Your task to perform on an android device: Show the shopping cart on newegg.com. Search for "panasonic triple a" on newegg.com, select the first entry, add it to the cart, then select checkout. Image 0: 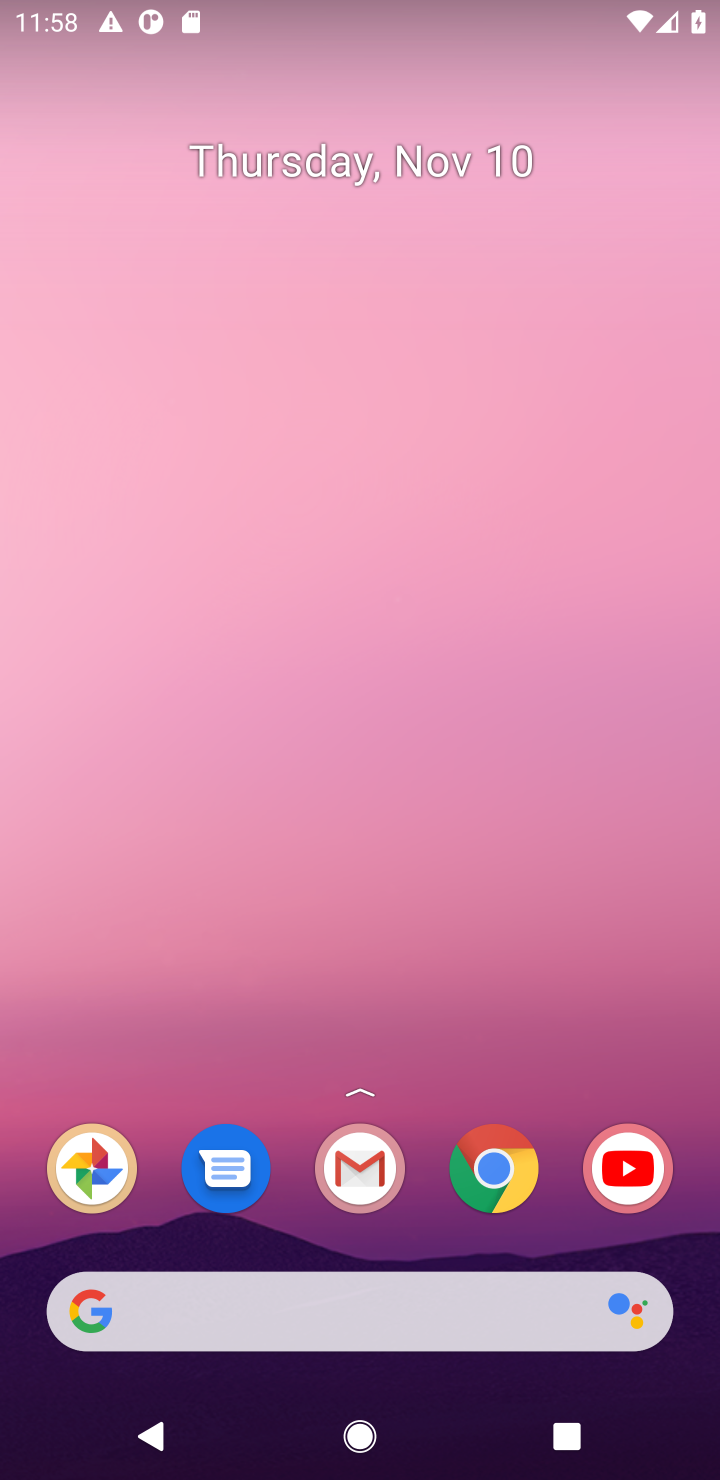
Step 0: click (498, 1170)
Your task to perform on an android device: Show the shopping cart on newegg.com. Search for "panasonic triple a" on newegg.com, select the first entry, add it to the cart, then select checkout. Image 1: 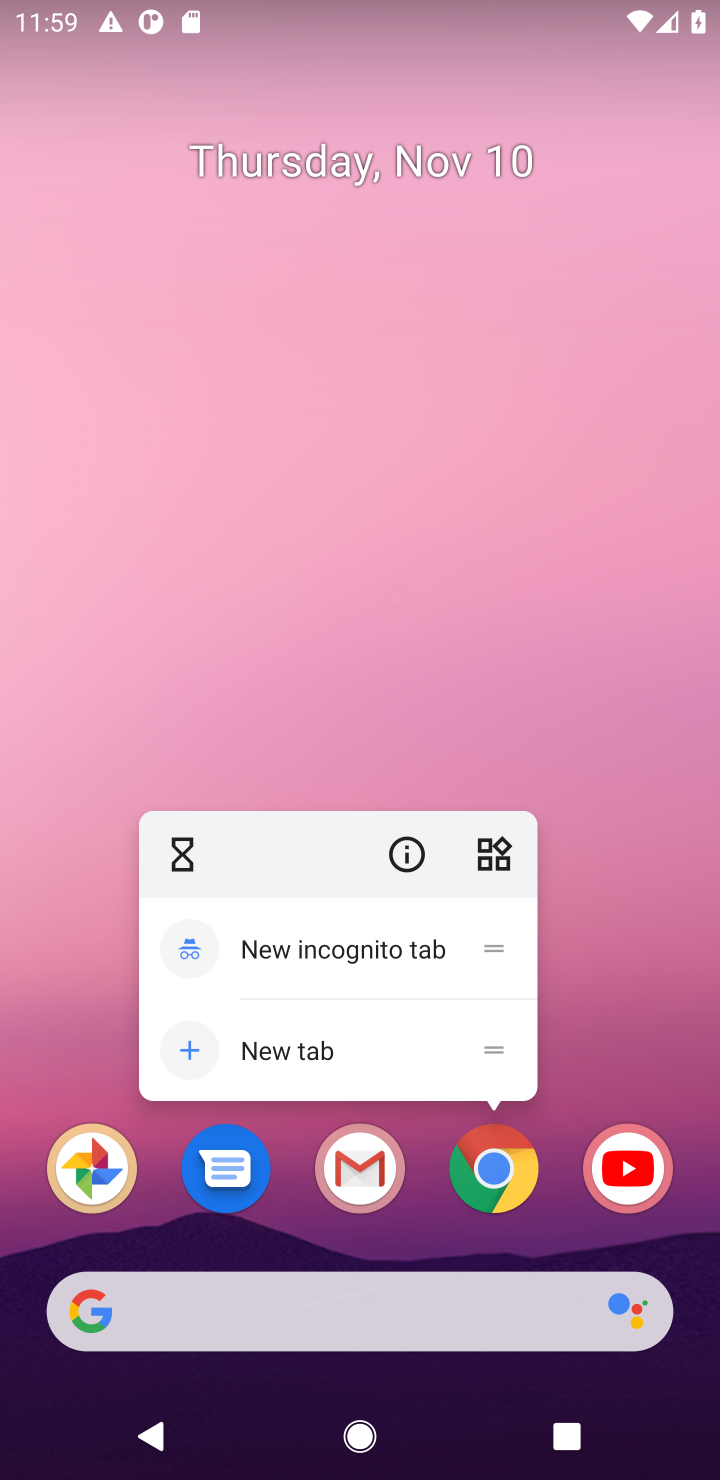
Step 1: click (498, 1170)
Your task to perform on an android device: Show the shopping cart on newegg.com. Search for "panasonic triple a" on newegg.com, select the first entry, add it to the cart, then select checkout. Image 2: 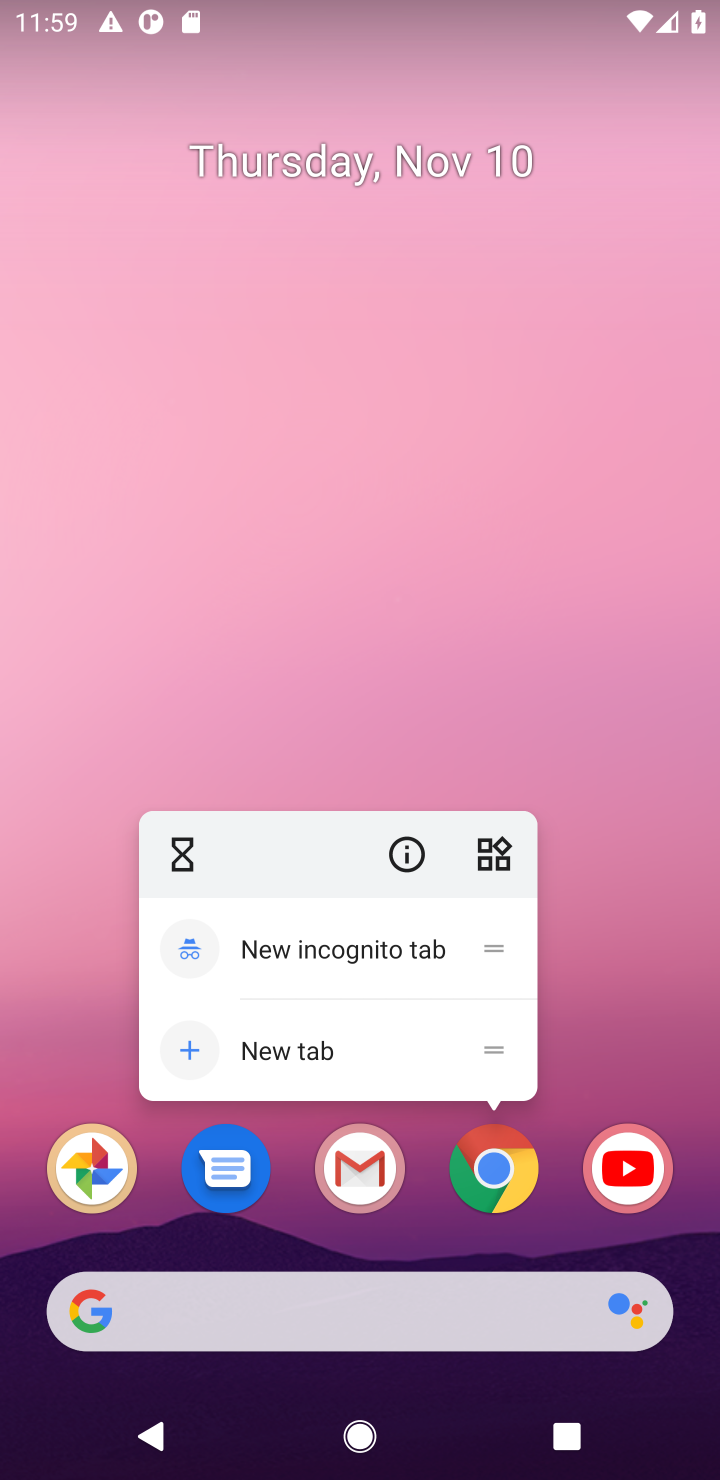
Step 2: click (498, 1171)
Your task to perform on an android device: Show the shopping cart on newegg.com. Search for "panasonic triple a" on newegg.com, select the first entry, add it to the cart, then select checkout. Image 3: 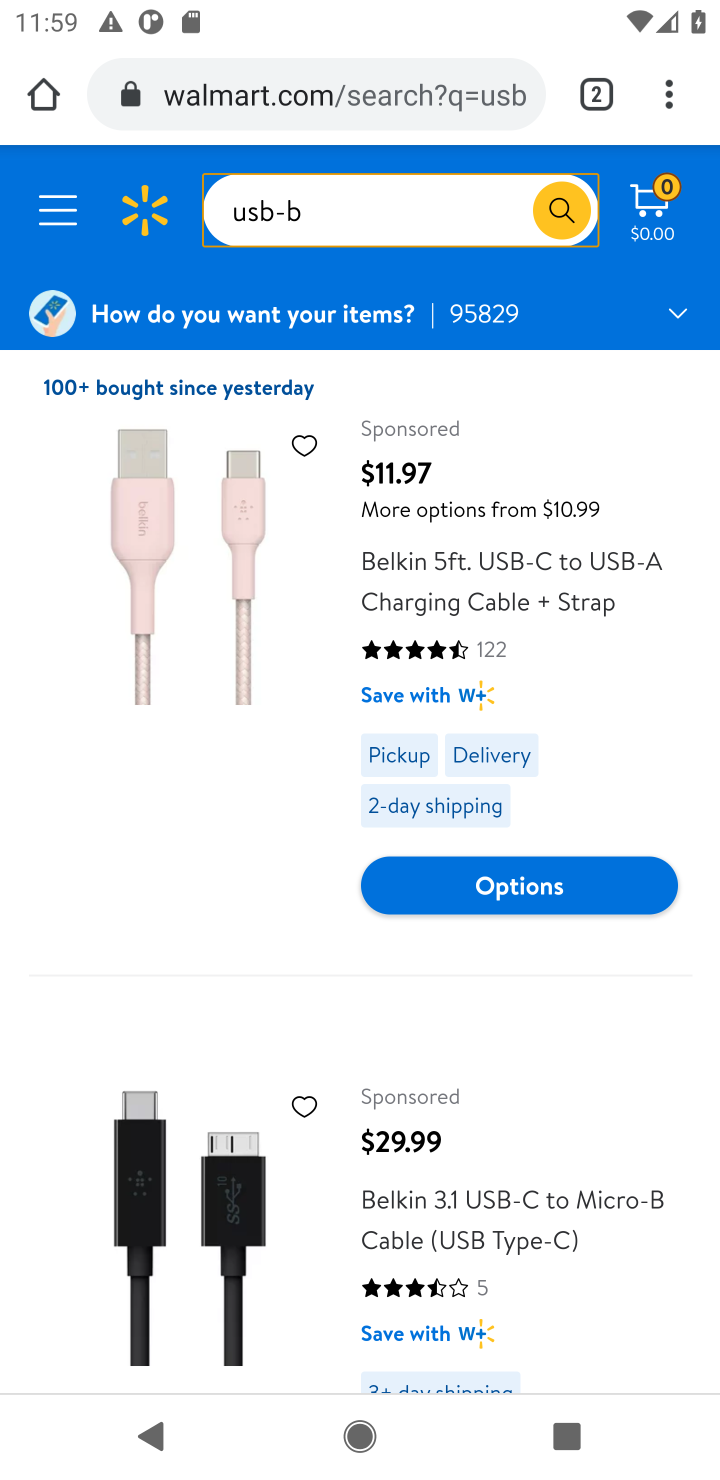
Step 3: click (331, 101)
Your task to perform on an android device: Show the shopping cart on newegg.com. Search for "panasonic triple a" on newegg.com, select the first entry, add it to the cart, then select checkout. Image 4: 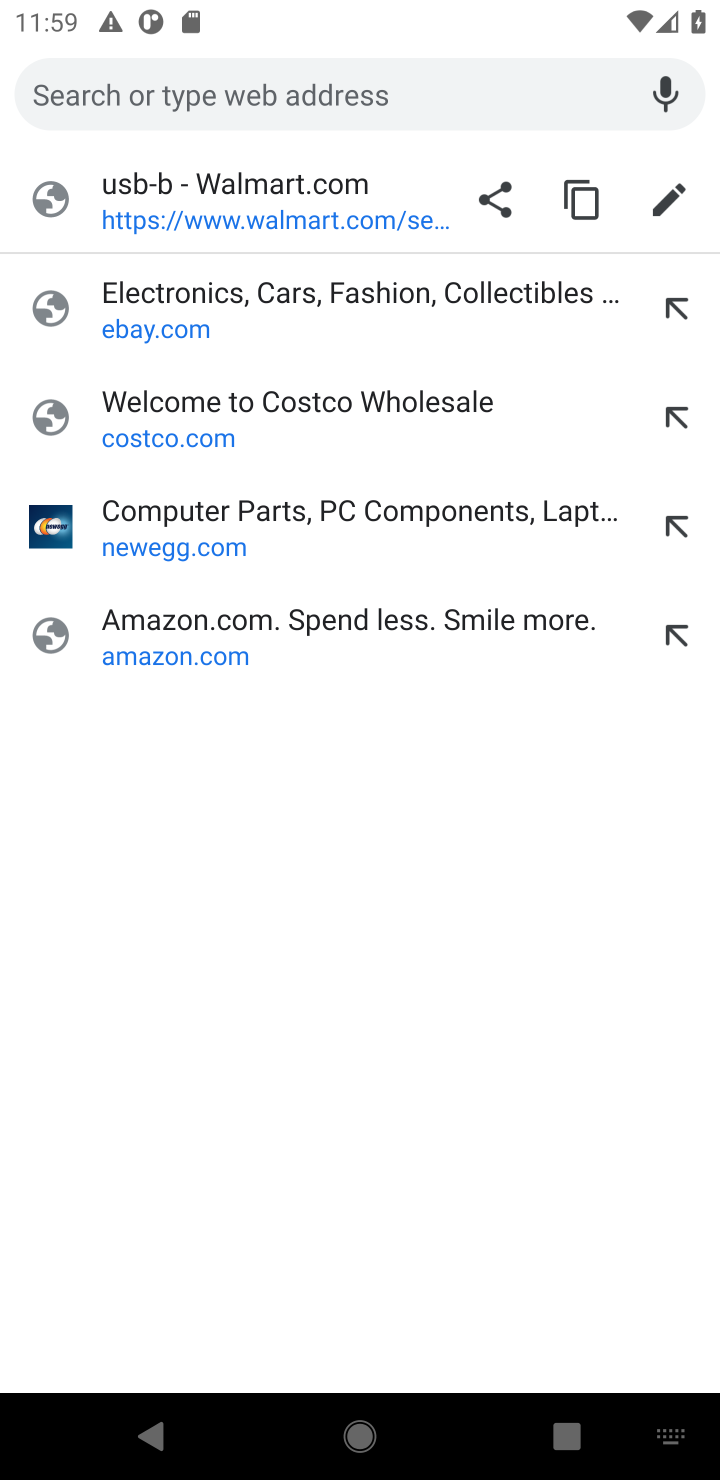
Step 4: click (196, 531)
Your task to perform on an android device: Show the shopping cart on newegg.com. Search for "panasonic triple a" on newegg.com, select the first entry, add it to the cart, then select checkout. Image 5: 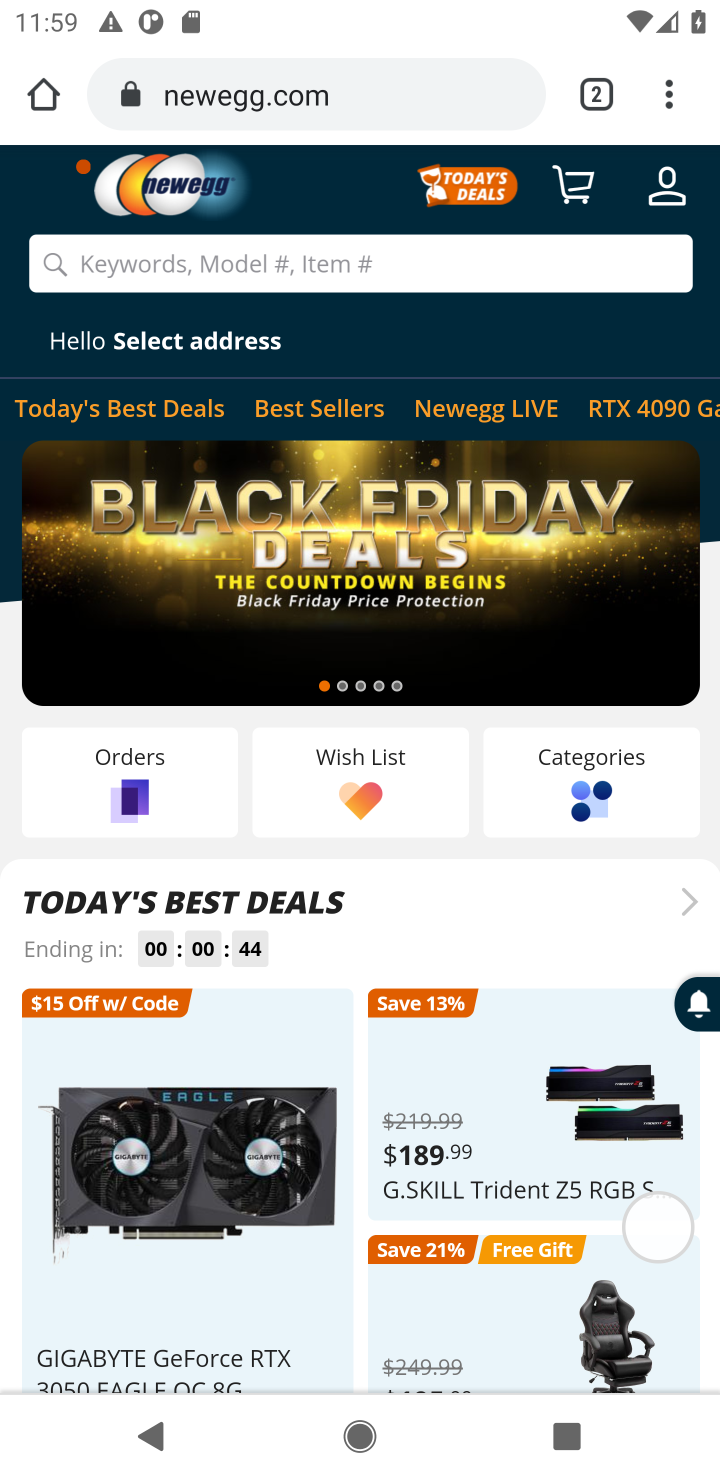
Step 5: click (583, 206)
Your task to perform on an android device: Show the shopping cart on newegg.com. Search for "panasonic triple a" on newegg.com, select the first entry, add it to the cart, then select checkout. Image 6: 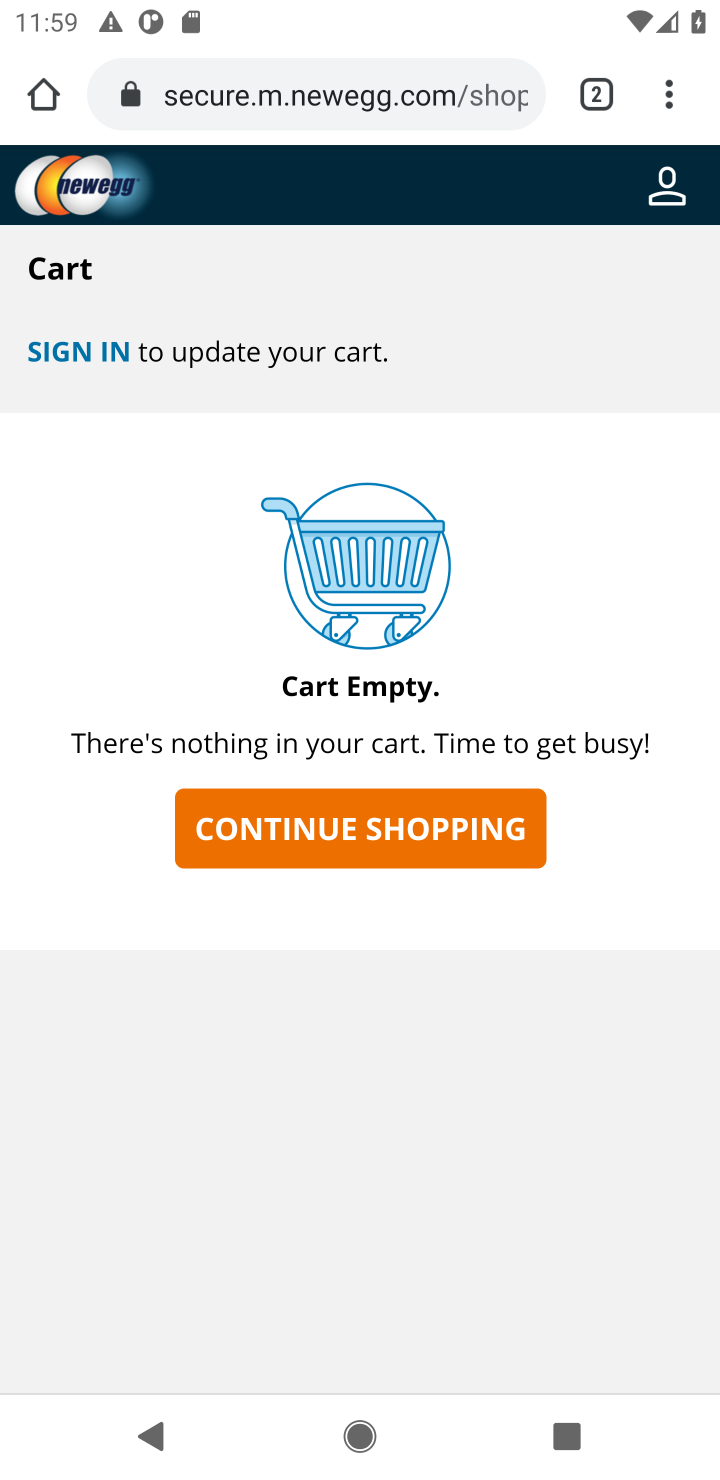
Step 6: click (296, 838)
Your task to perform on an android device: Show the shopping cart on newegg.com. Search for "panasonic triple a" on newegg.com, select the first entry, add it to the cart, then select checkout. Image 7: 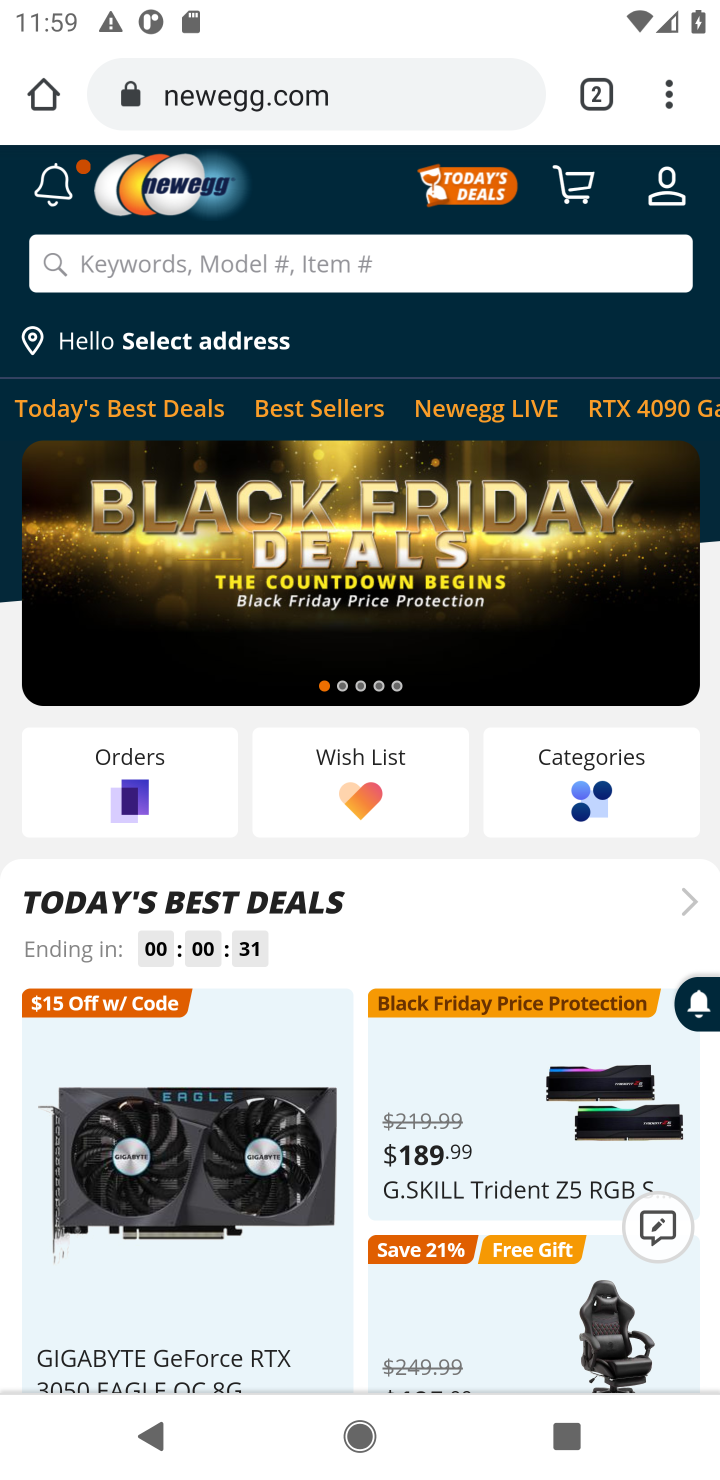
Step 7: click (348, 261)
Your task to perform on an android device: Show the shopping cart on newegg.com. Search for "panasonic triple a" on newegg.com, select the first entry, add it to the cart, then select checkout. Image 8: 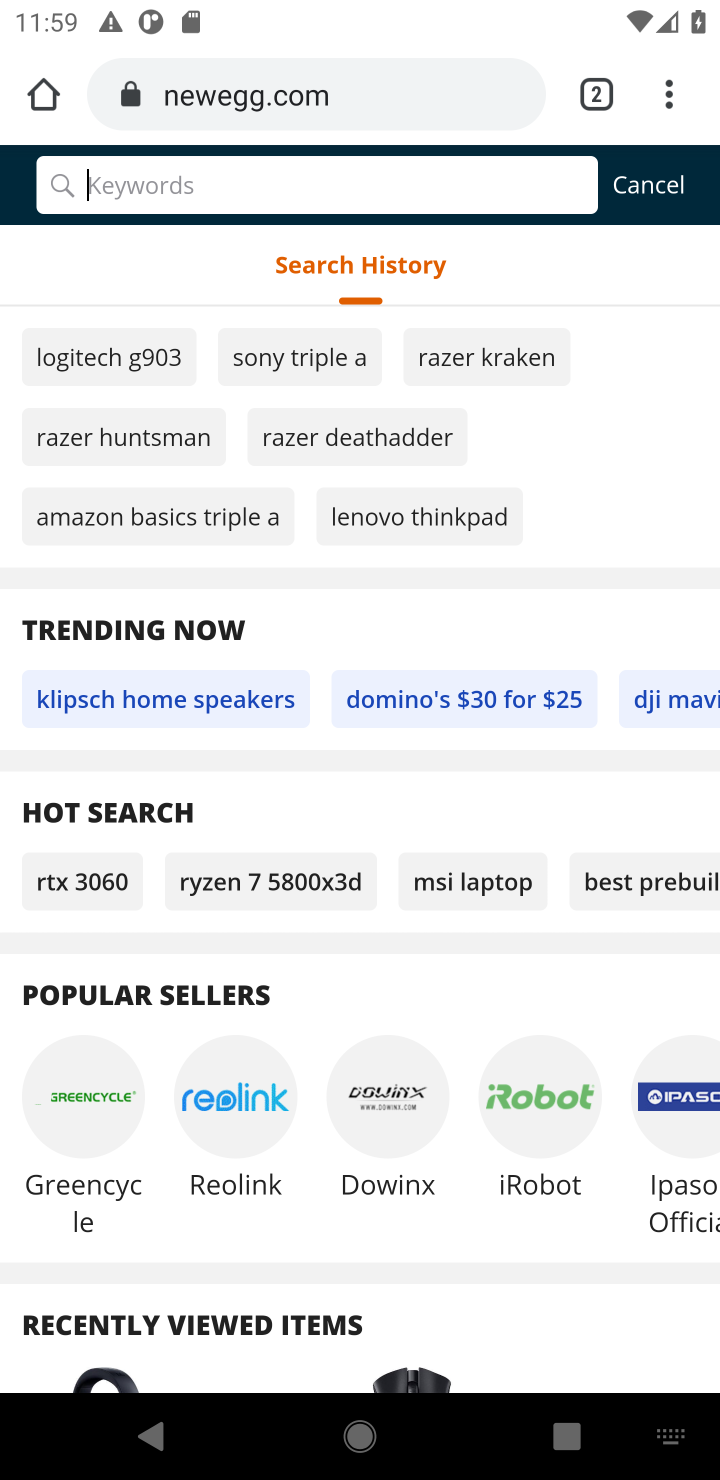
Step 8: type "panasonic triple a"
Your task to perform on an android device: Show the shopping cart on newegg.com. Search for "panasonic triple a" on newegg.com, select the first entry, add it to the cart, then select checkout. Image 9: 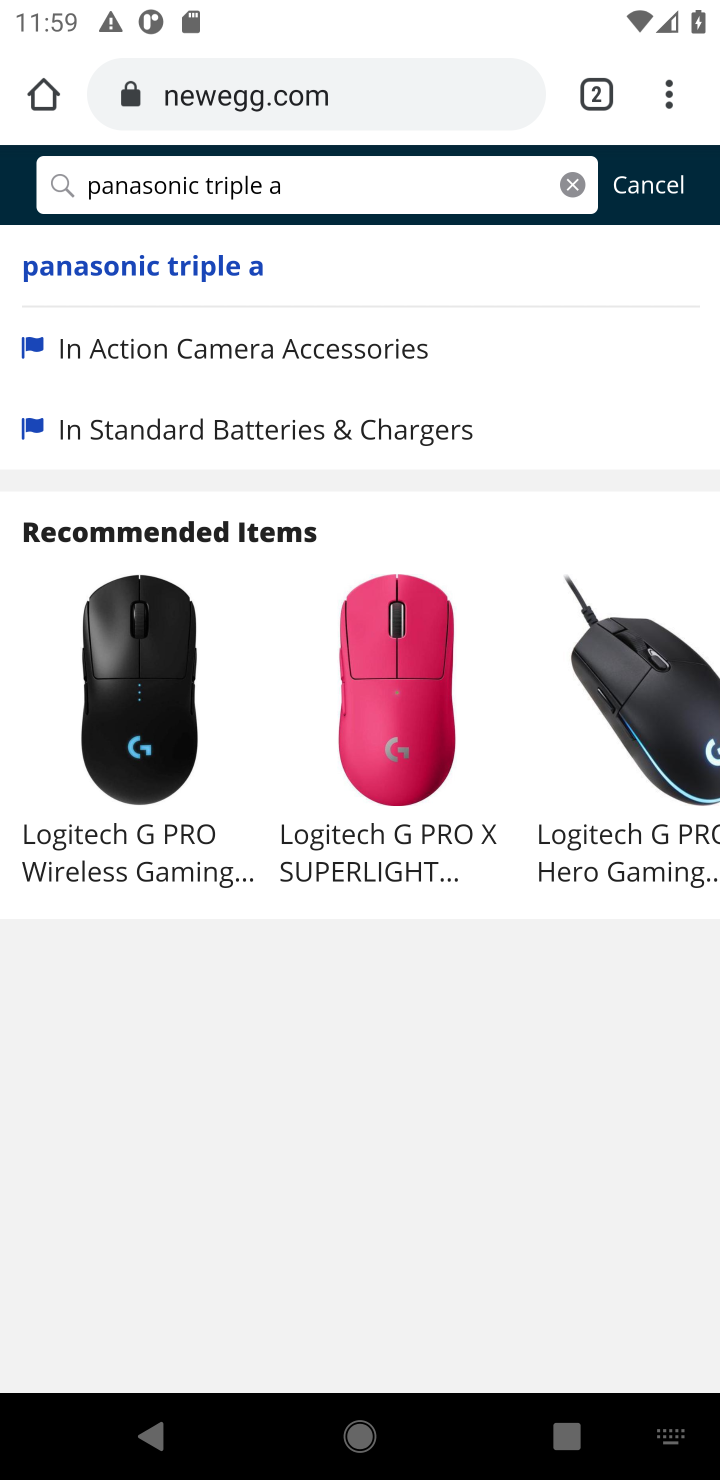
Step 9: click (218, 262)
Your task to perform on an android device: Show the shopping cart on newegg.com. Search for "panasonic triple a" on newegg.com, select the first entry, add it to the cart, then select checkout. Image 10: 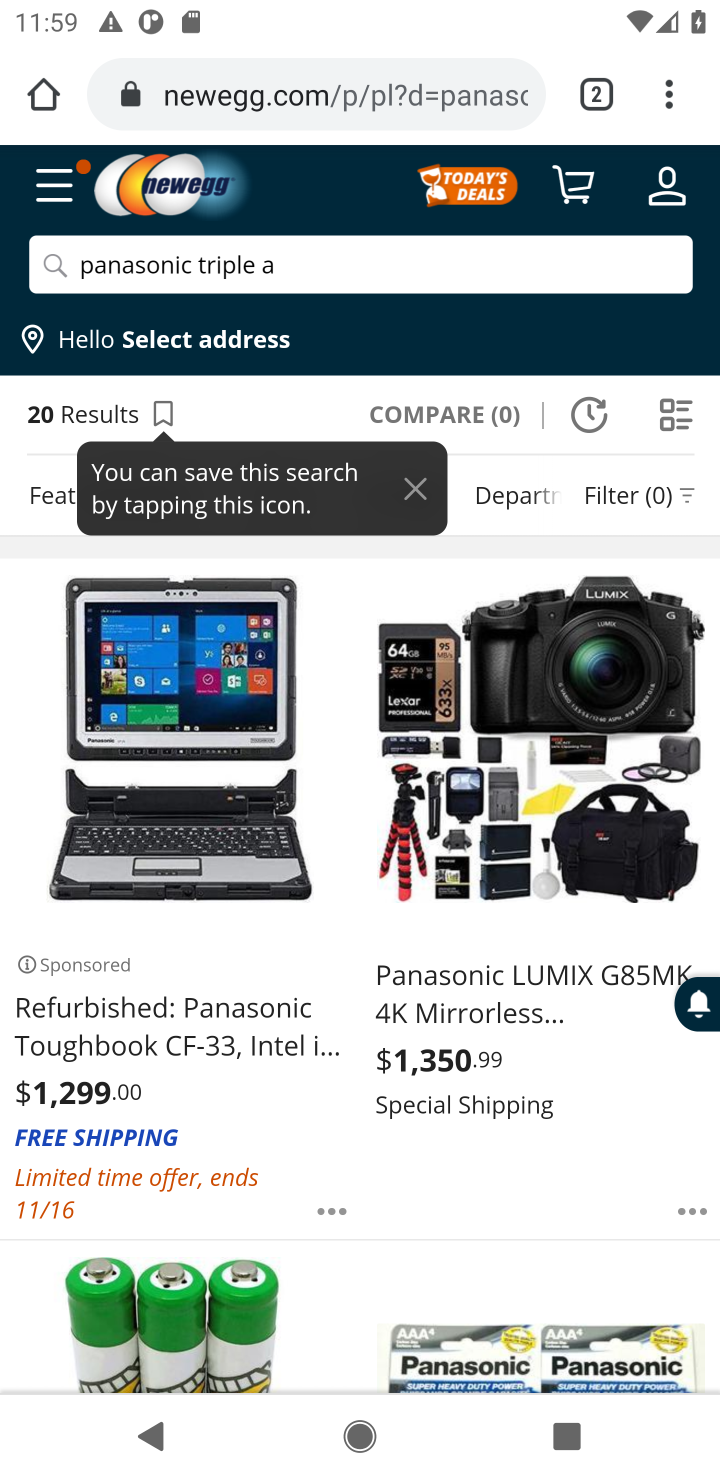
Step 10: task complete